Your task to perform on an android device: turn on translation in the chrome app Image 0: 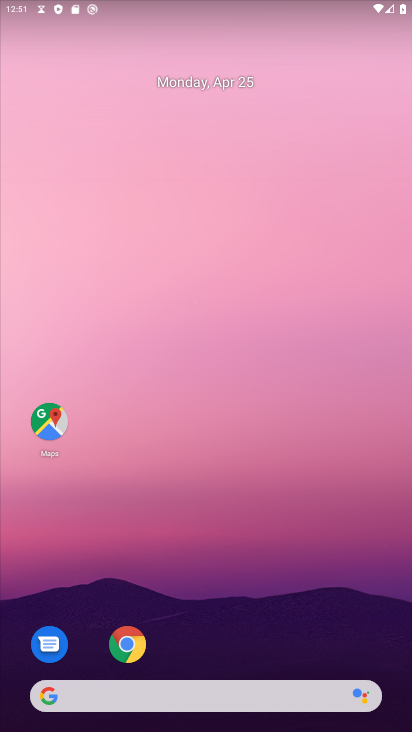
Step 0: click (132, 651)
Your task to perform on an android device: turn on translation in the chrome app Image 1: 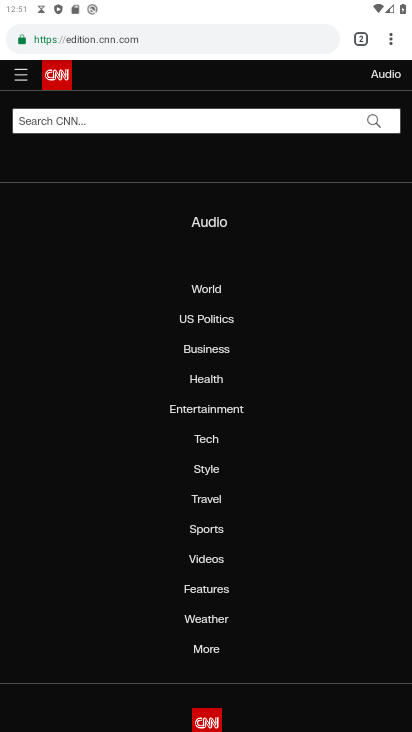
Step 1: drag from (389, 40) to (243, 513)
Your task to perform on an android device: turn on translation in the chrome app Image 2: 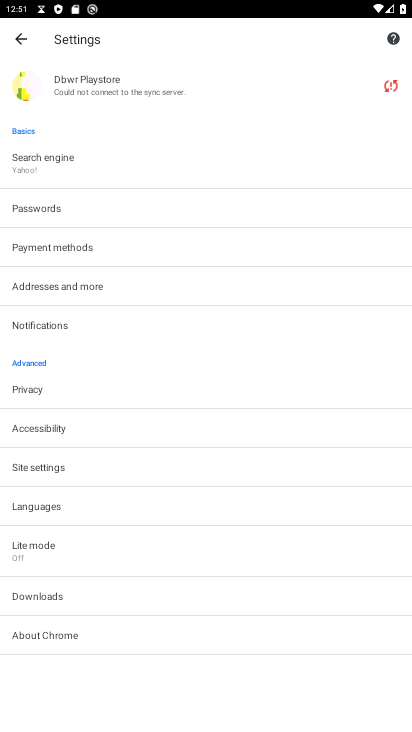
Step 2: click (49, 507)
Your task to perform on an android device: turn on translation in the chrome app Image 3: 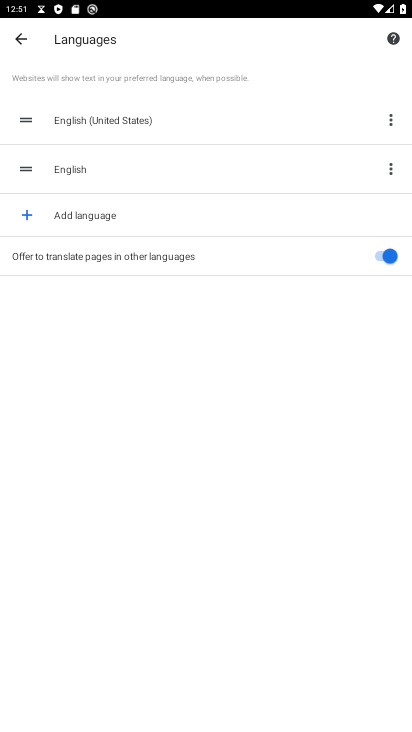
Step 3: task complete